Your task to perform on an android device: turn notification dots on Image 0: 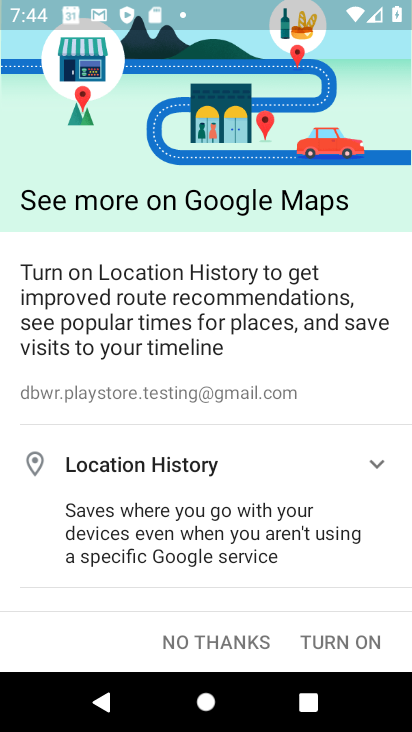
Step 0: press home button
Your task to perform on an android device: turn notification dots on Image 1: 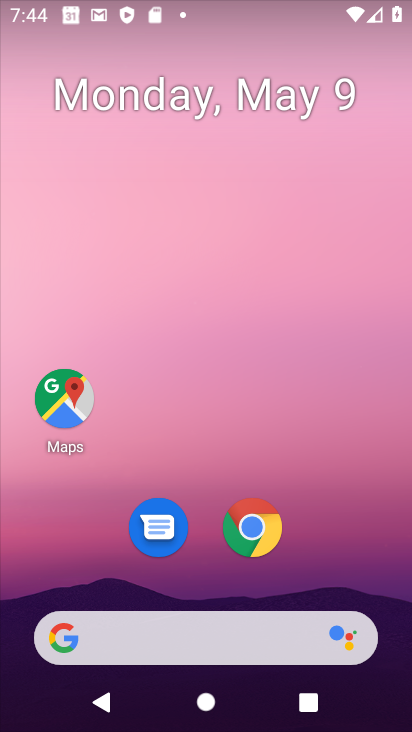
Step 1: drag from (239, 654) to (323, 84)
Your task to perform on an android device: turn notification dots on Image 2: 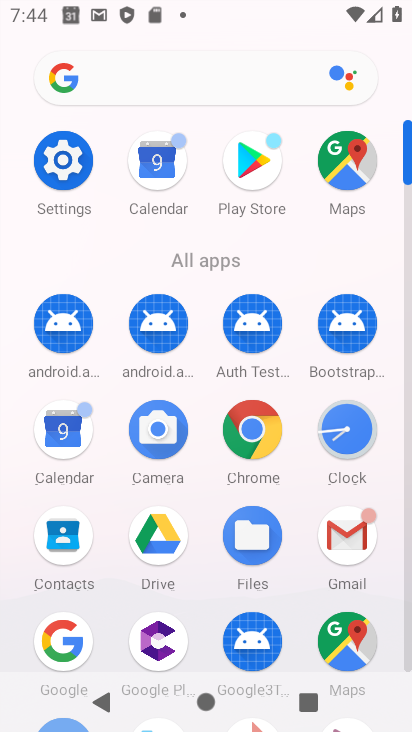
Step 2: click (43, 187)
Your task to perform on an android device: turn notification dots on Image 3: 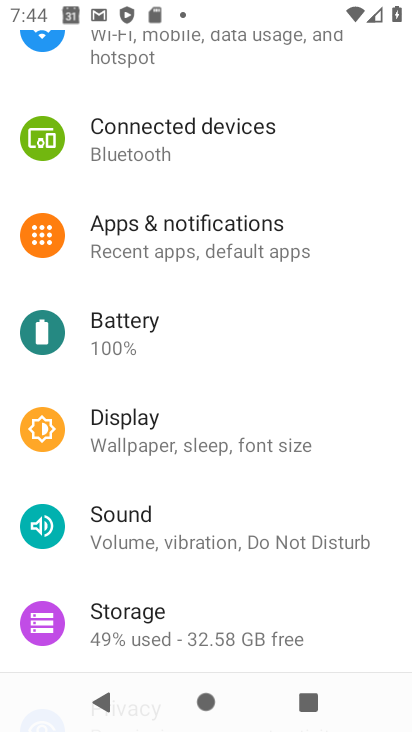
Step 3: click (164, 239)
Your task to perform on an android device: turn notification dots on Image 4: 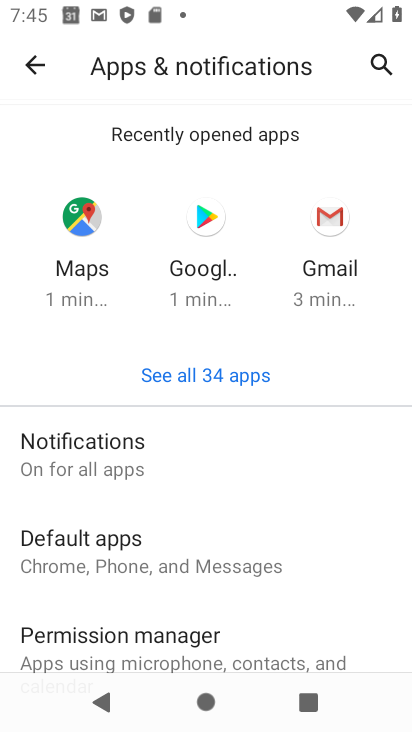
Step 4: click (150, 474)
Your task to perform on an android device: turn notification dots on Image 5: 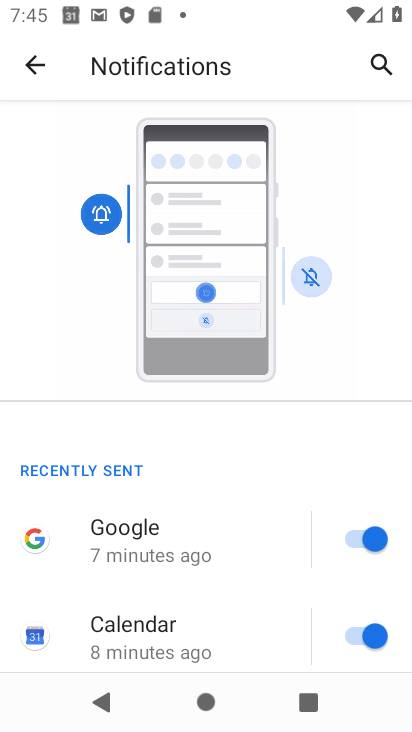
Step 5: drag from (168, 536) to (210, 289)
Your task to perform on an android device: turn notification dots on Image 6: 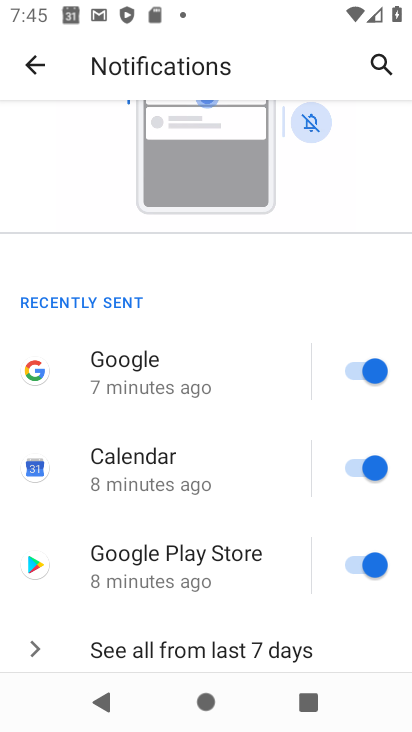
Step 6: drag from (150, 550) to (194, 287)
Your task to perform on an android device: turn notification dots on Image 7: 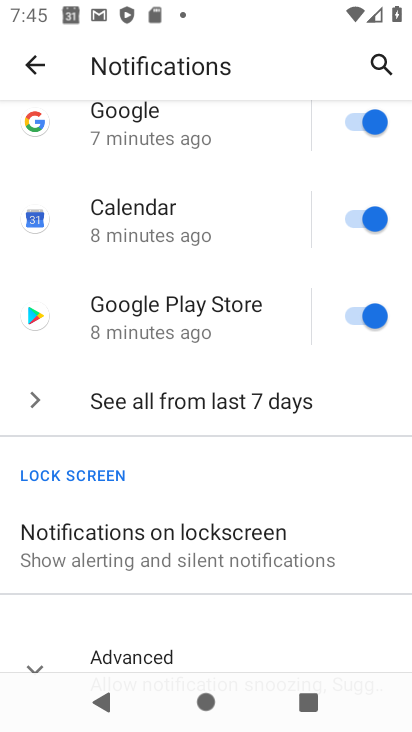
Step 7: drag from (160, 568) to (197, 289)
Your task to perform on an android device: turn notification dots on Image 8: 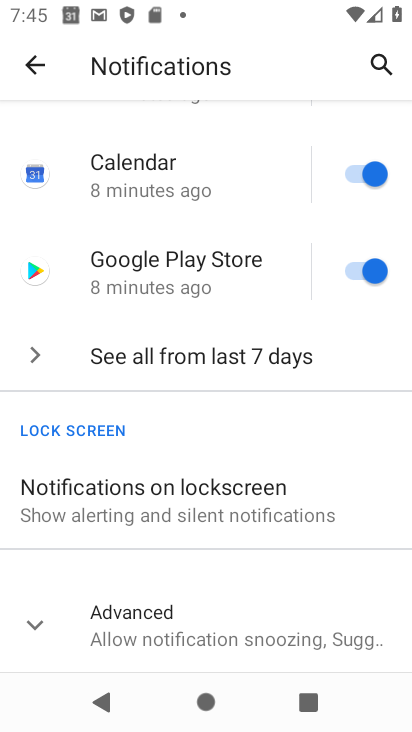
Step 8: click (214, 621)
Your task to perform on an android device: turn notification dots on Image 9: 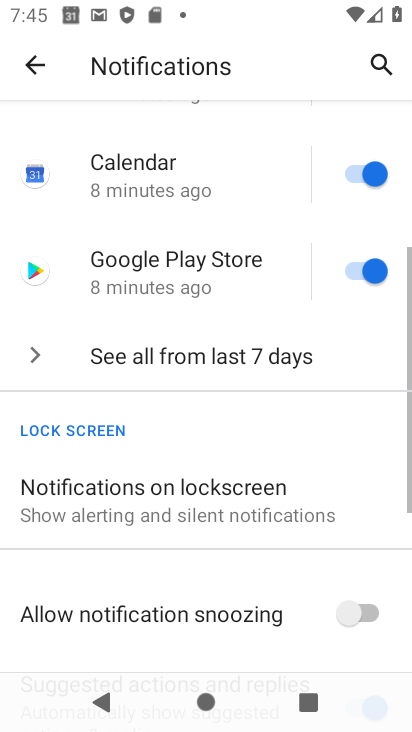
Step 9: task complete